Your task to perform on an android device: Open settings Image 0: 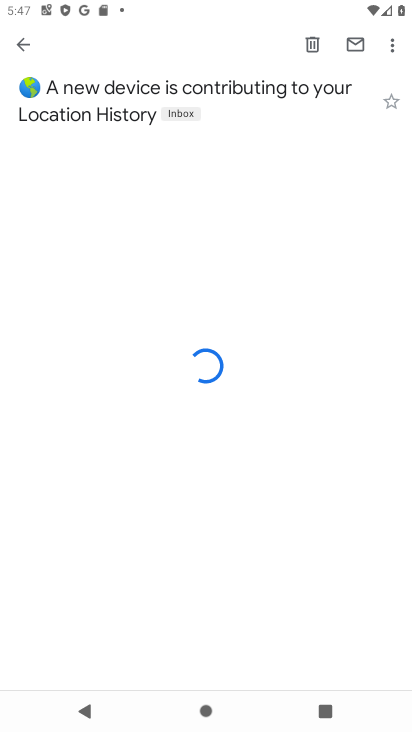
Step 0: press home button
Your task to perform on an android device: Open settings Image 1: 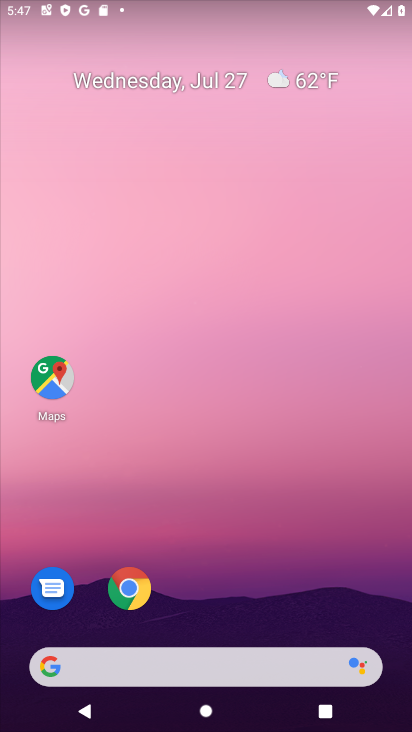
Step 1: drag from (198, 619) to (166, 2)
Your task to perform on an android device: Open settings Image 2: 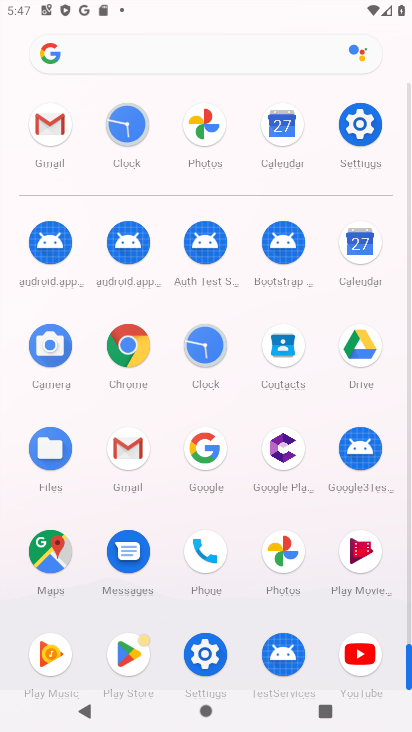
Step 2: click (213, 648)
Your task to perform on an android device: Open settings Image 3: 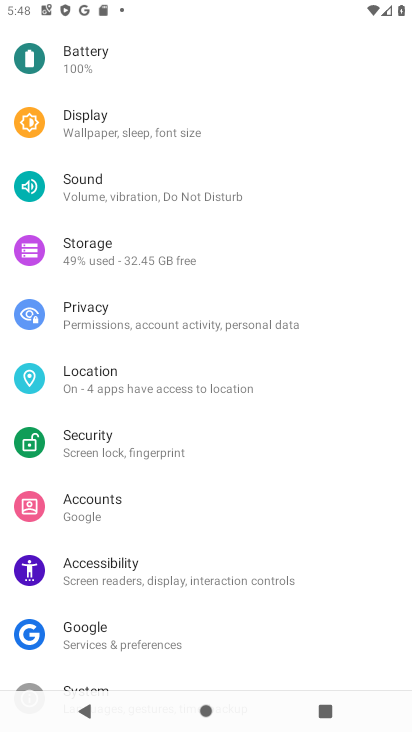
Step 3: task complete